Your task to perform on an android device: find photos in the google photos app Image 0: 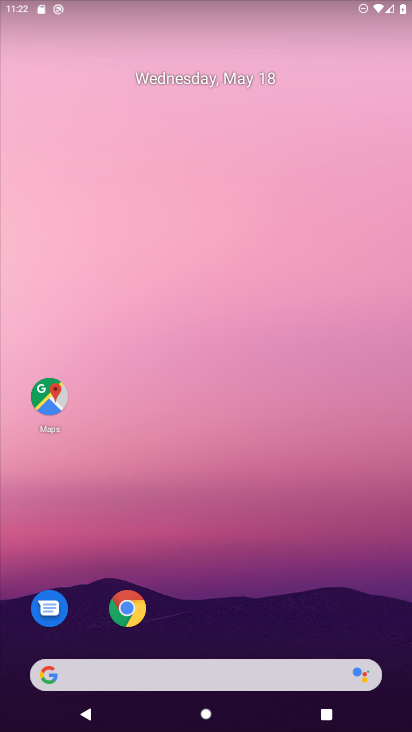
Step 0: drag from (273, 566) to (222, 15)
Your task to perform on an android device: find photos in the google photos app Image 1: 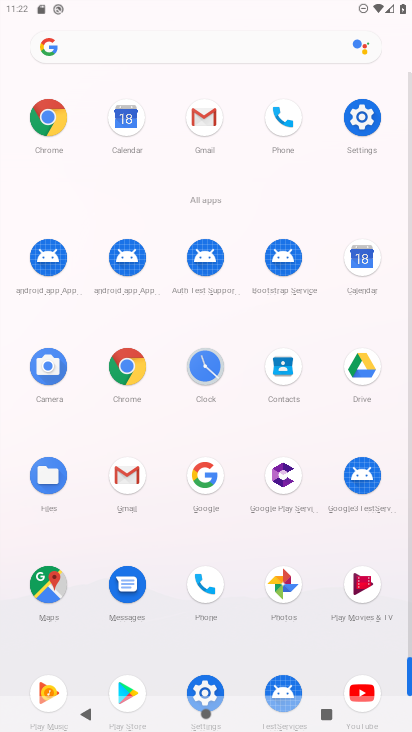
Step 1: click (282, 582)
Your task to perform on an android device: find photos in the google photos app Image 2: 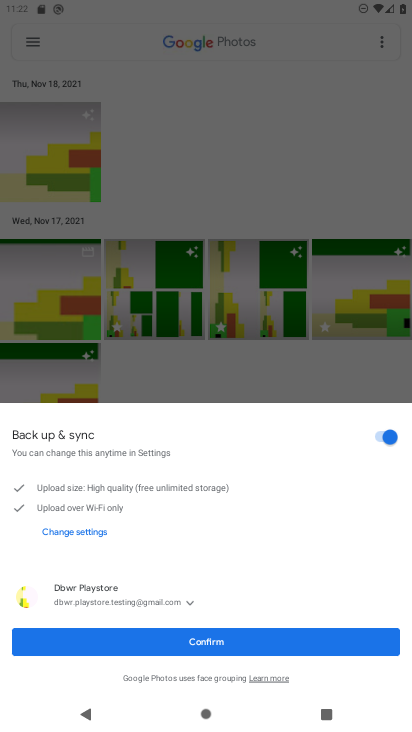
Step 2: click (210, 648)
Your task to perform on an android device: find photos in the google photos app Image 3: 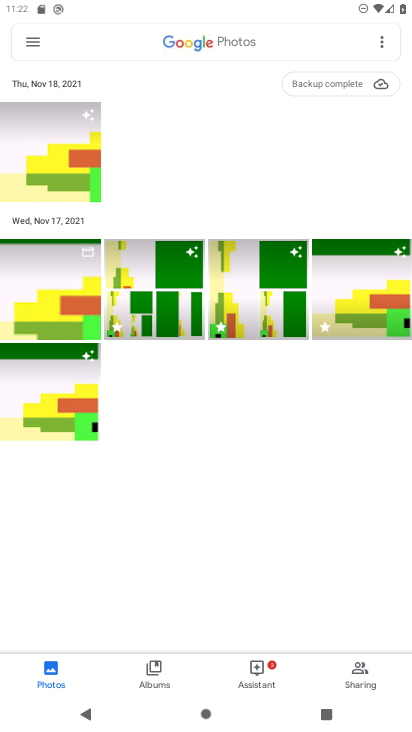
Step 3: click (42, 200)
Your task to perform on an android device: find photos in the google photos app Image 4: 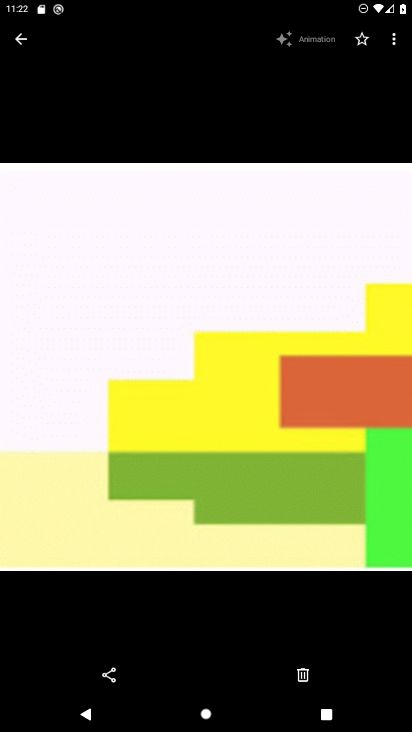
Step 4: task complete